Your task to perform on an android device: Check the weather Image 0: 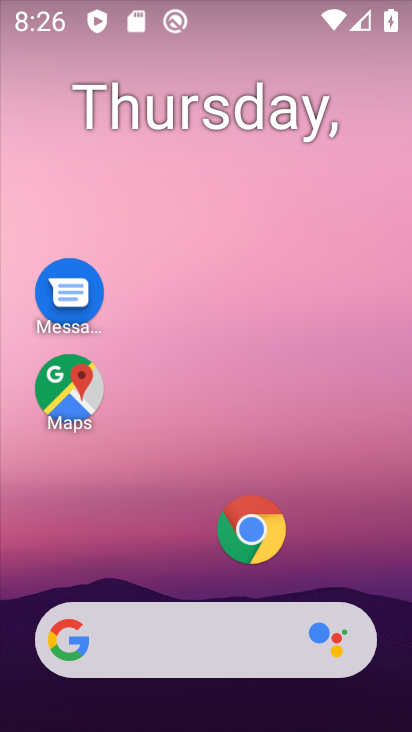
Step 0: click (180, 631)
Your task to perform on an android device: Check the weather Image 1: 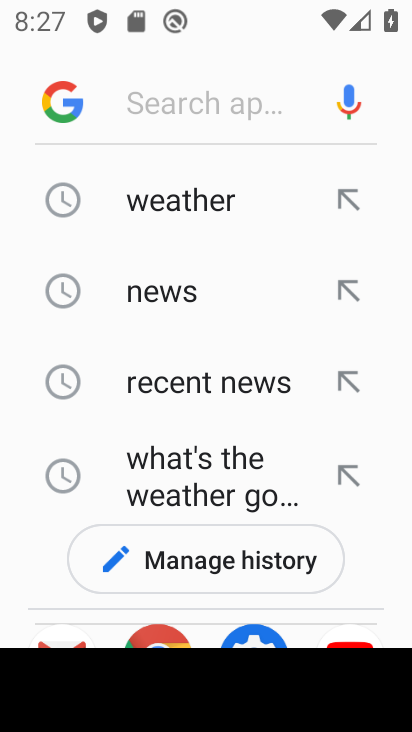
Step 1: click (211, 197)
Your task to perform on an android device: Check the weather Image 2: 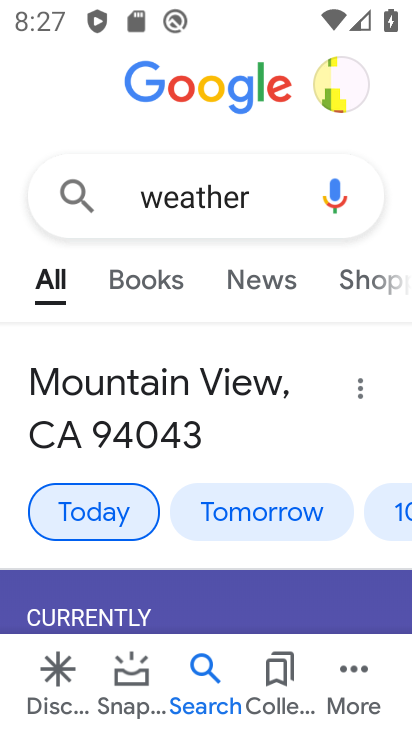
Step 2: task complete